Your task to perform on an android device: Open the map Image 0: 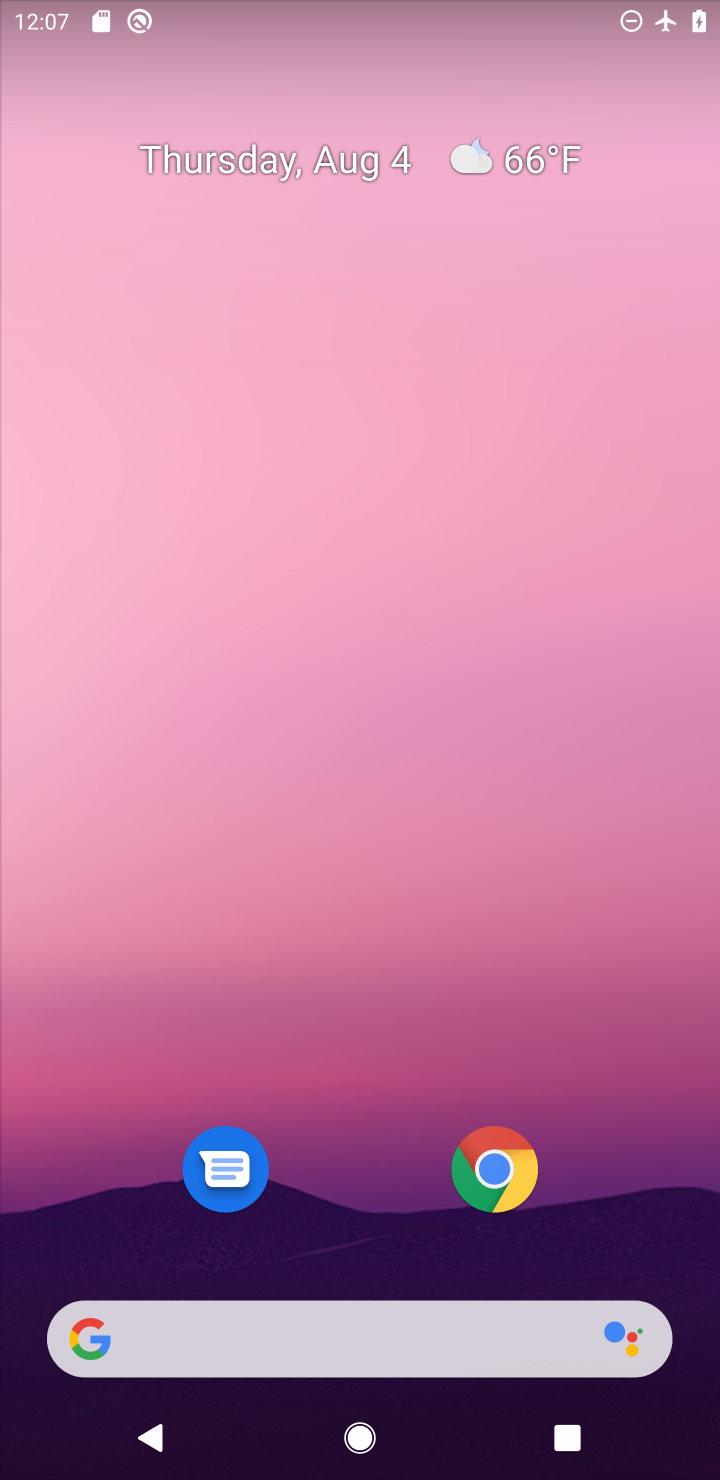
Step 0: drag from (393, 1154) to (413, 0)
Your task to perform on an android device: Open the map Image 1: 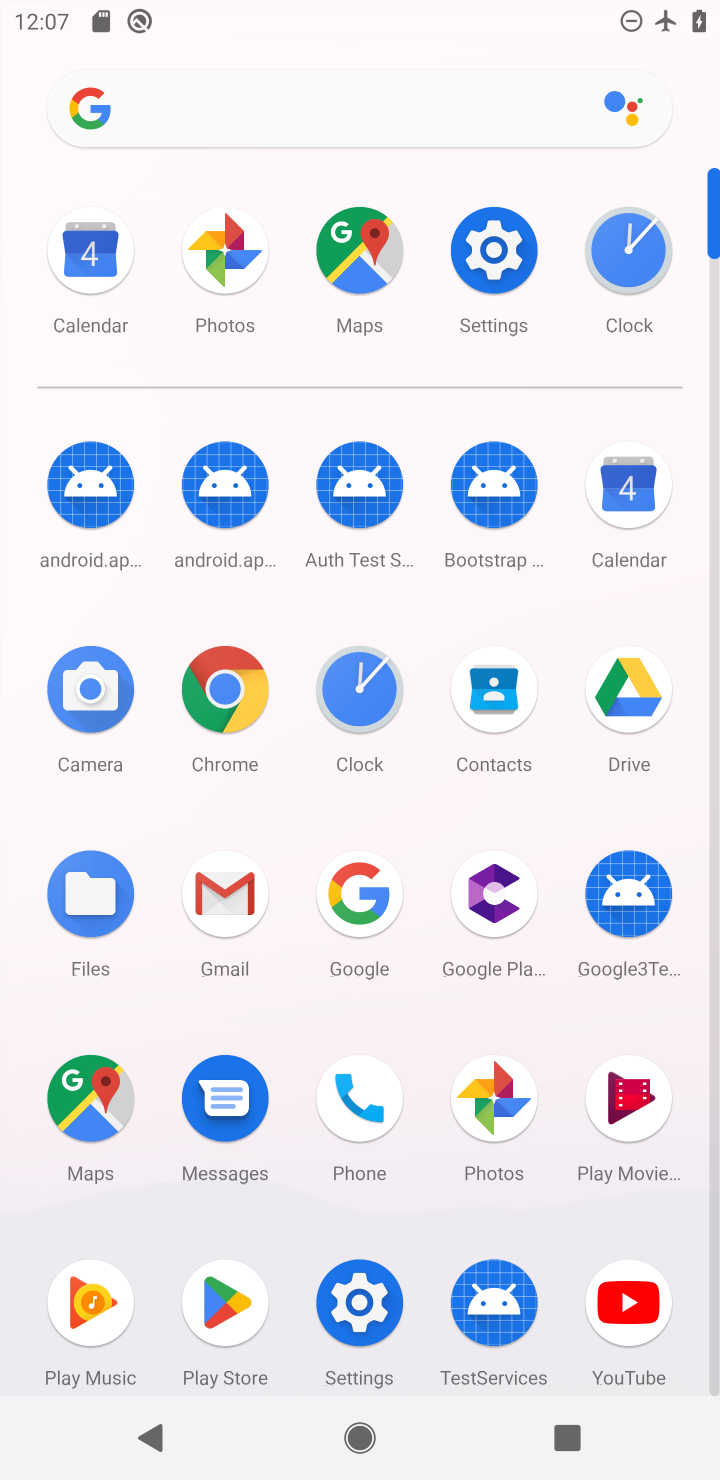
Step 1: click (353, 267)
Your task to perform on an android device: Open the map Image 2: 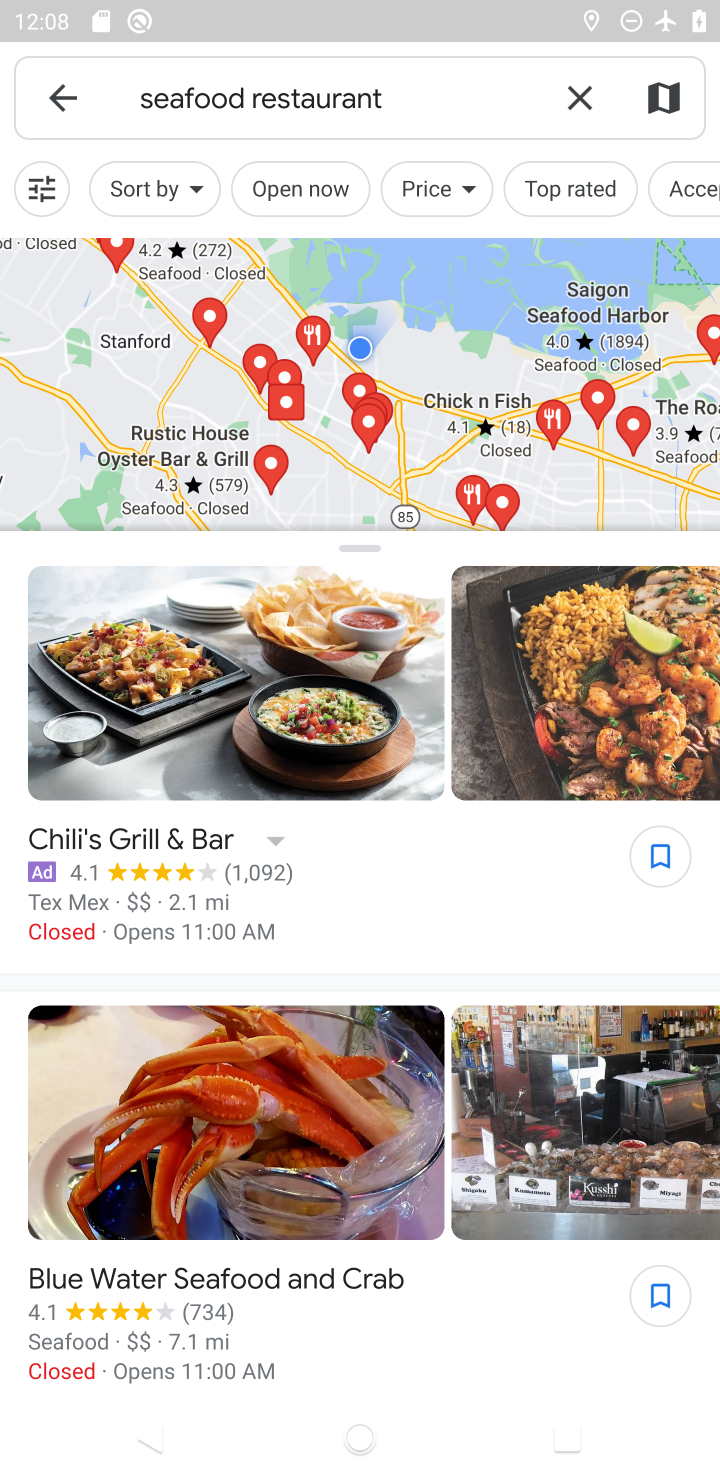
Step 2: task complete